Your task to perform on an android device: Open internet settings Image 0: 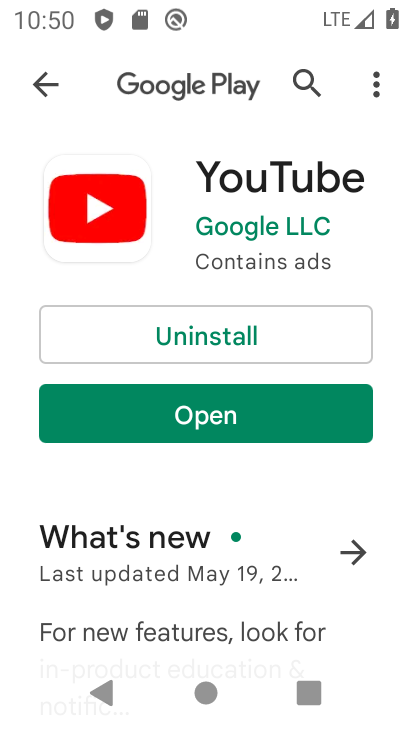
Step 0: press home button
Your task to perform on an android device: Open internet settings Image 1: 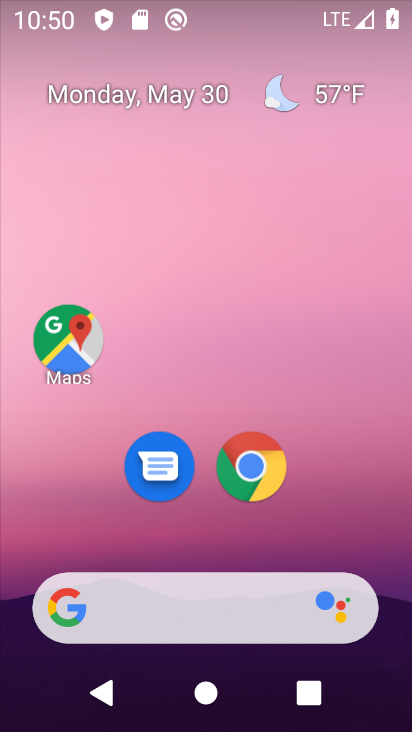
Step 1: drag from (366, 528) to (352, 7)
Your task to perform on an android device: Open internet settings Image 2: 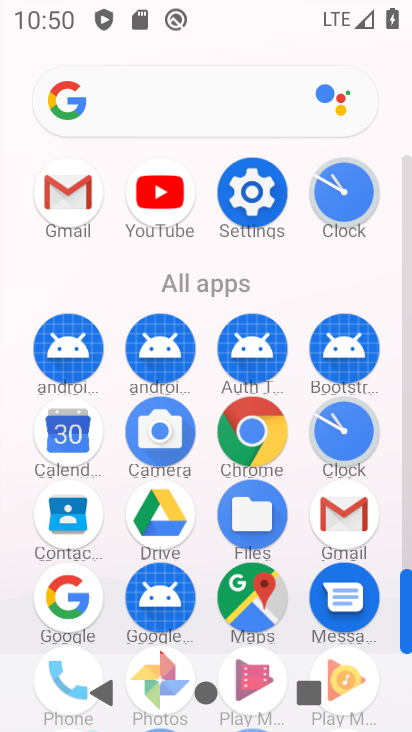
Step 2: click (241, 190)
Your task to perform on an android device: Open internet settings Image 3: 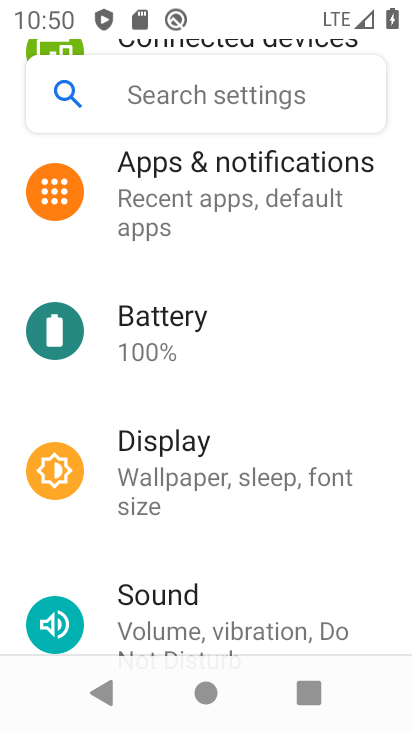
Step 3: drag from (341, 261) to (346, 585)
Your task to perform on an android device: Open internet settings Image 4: 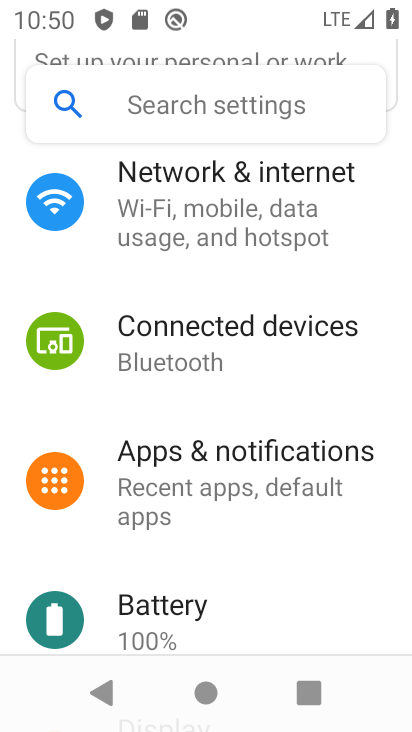
Step 4: click (214, 187)
Your task to perform on an android device: Open internet settings Image 5: 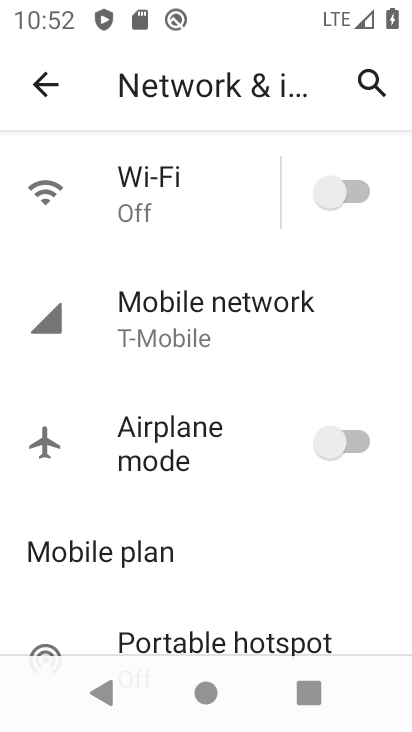
Step 5: task complete